Your task to perform on an android device: Open Chrome and go to settings Image 0: 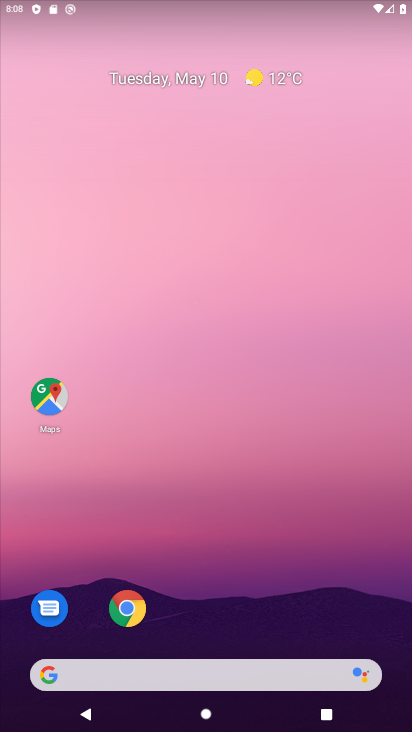
Step 0: click (125, 603)
Your task to perform on an android device: Open Chrome and go to settings Image 1: 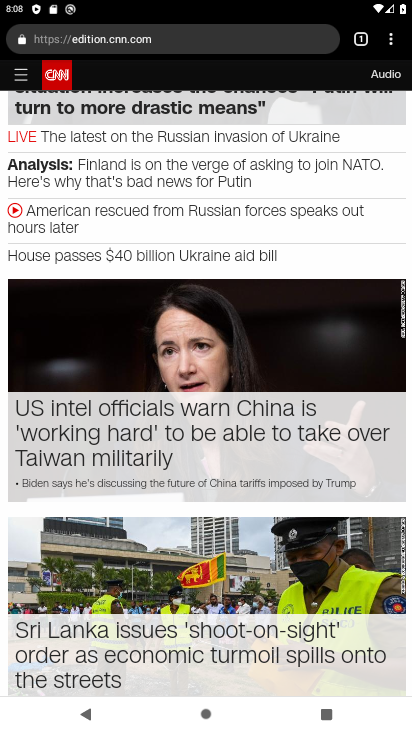
Step 1: task complete